Your task to perform on an android device: turn off location history Image 0: 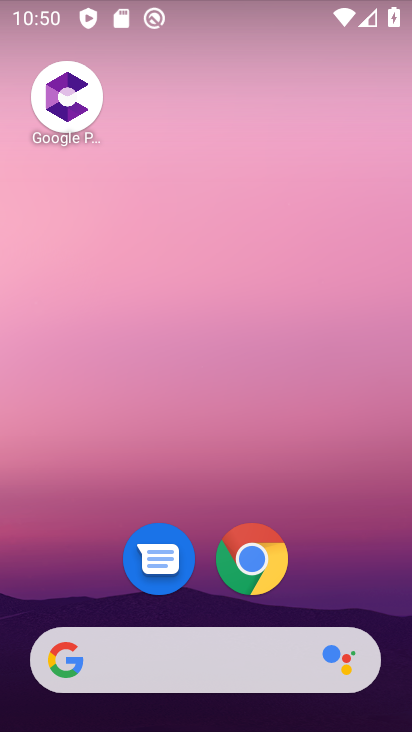
Step 0: drag from (323, 527) to (347, 196)
Your task to perform on an android device: turn off location history Image 1: 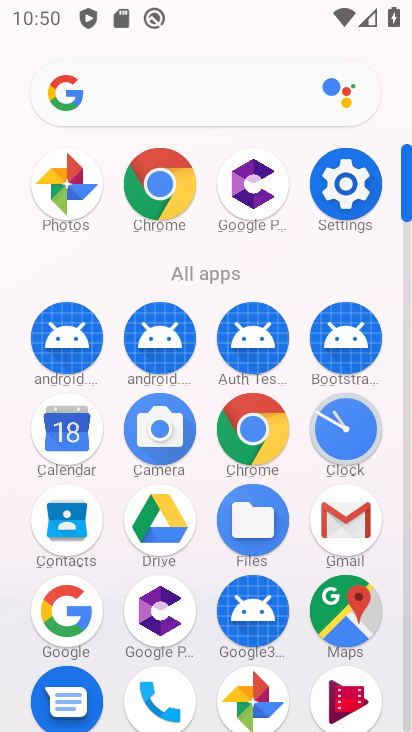
Step 1: drag from (354, 194) to (163, 204)
Your task to perform on an android device: turn off location history Image 2: 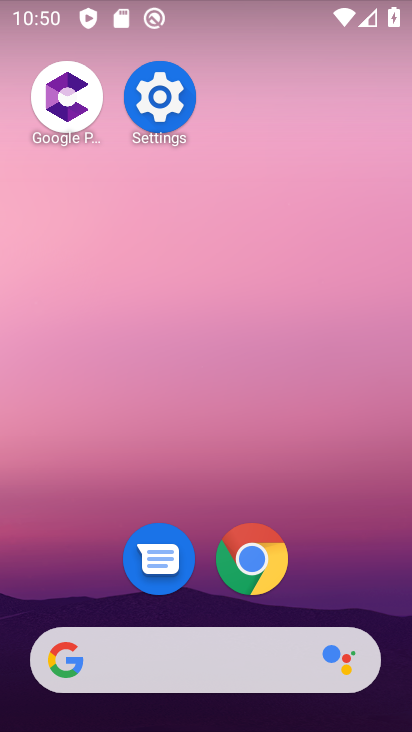
Step 2: drag from (157, 100) to (91, 198)
Your task to perform on an android device: turn off location history Image 3: 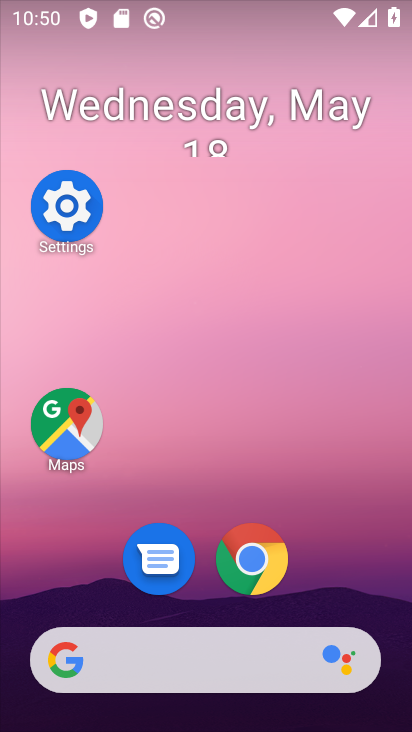
Step 3: click (64, 196)
Your task to perform on an android device: turn off location history Image 4: 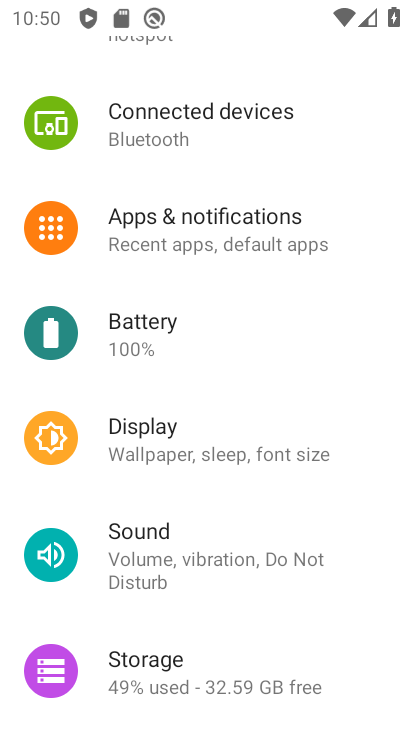
Step 4: drag from (254, 637) to (245, 149)
Your task to perform on an android device: turn off location history Image 5: 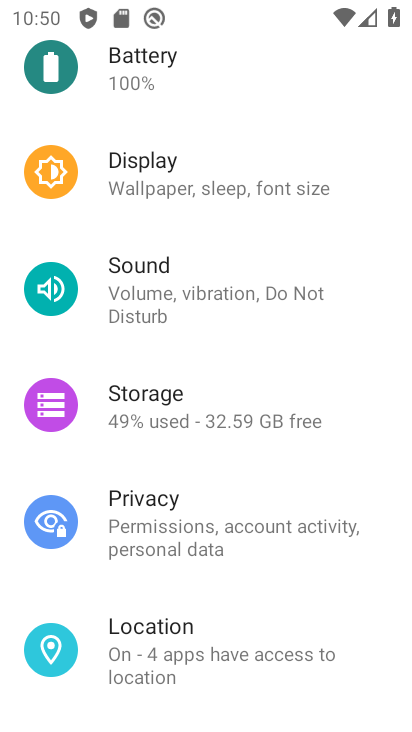
Step 5: click (237, 653)
Your task to perform on an android device: turn off location history Image 6: 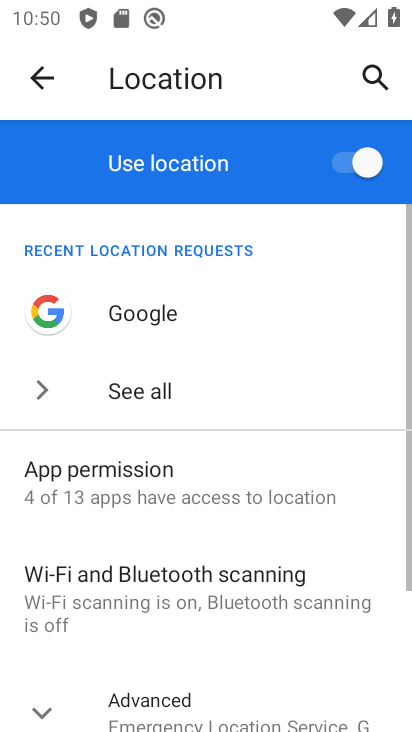
Step 6: drag from (225, 622) to (243, 161)
Your task to perform on an android device: turn off location history Image 7: 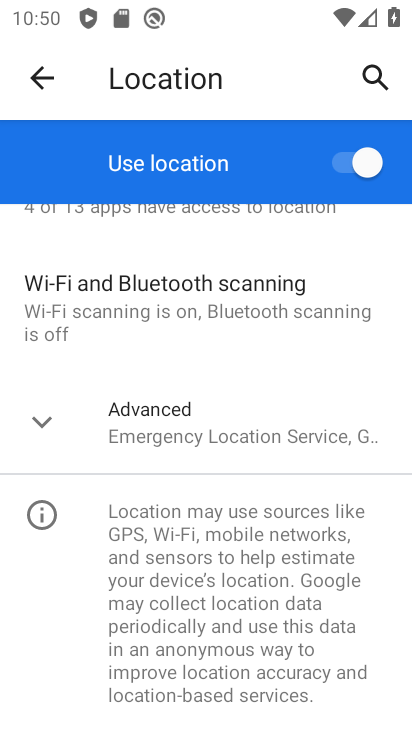
Step 7: click (172, 454)
Your task to perform on an android device: turn off location history Image 8: 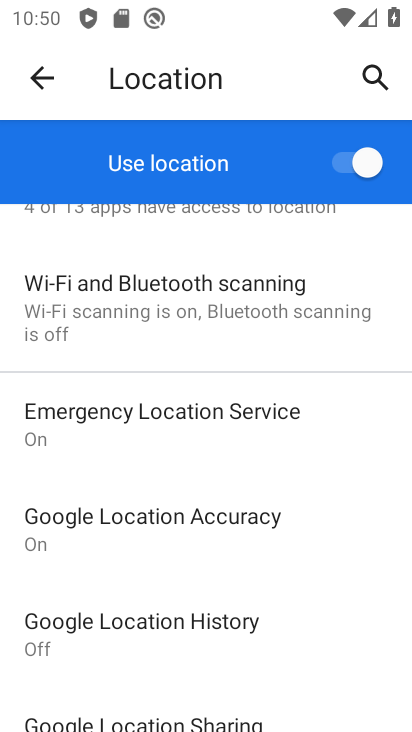
Step 8: click (210, 619)
Your task to perform on an android device: turn off location history Image 9: 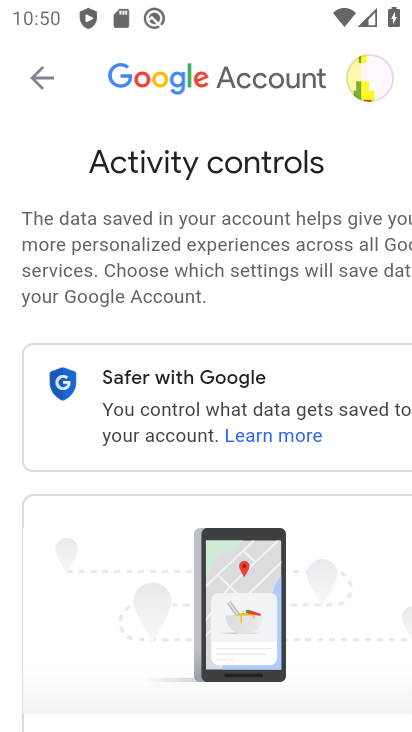
Step 9: drag from (350, 587) to (368, 46)
Your task to perform on an android device: turn off location history Image 10: 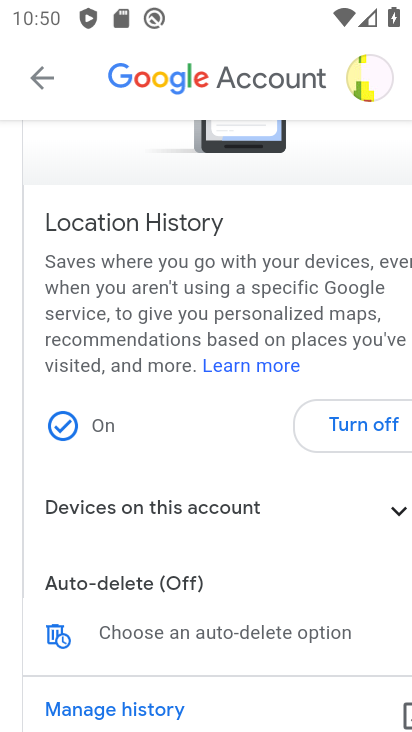
Step 10: click (356, 427)
Your task to perform on an android device: turn off location history Image 11: 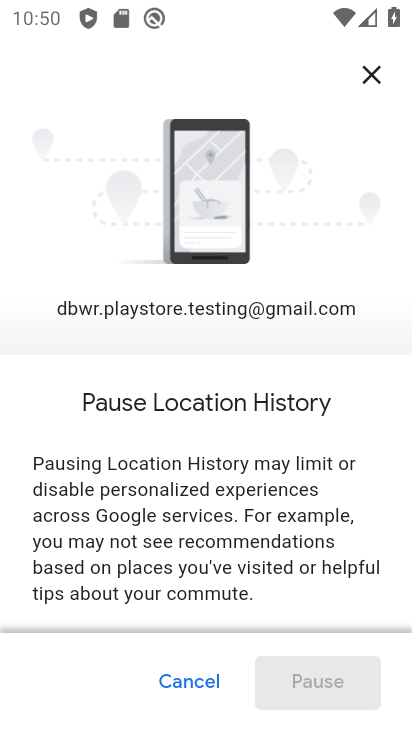
Step 11: drag from (357, 568) to (359, 66)
Your task to perform on an android device: turn off location history Image 12: 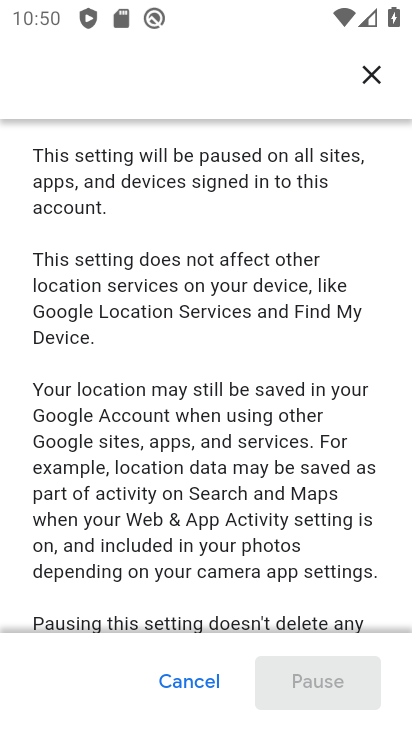
Step 12: drag from (258, 580) to (320, 61)
Your task to perform on an android device: turn off location history Image 13: 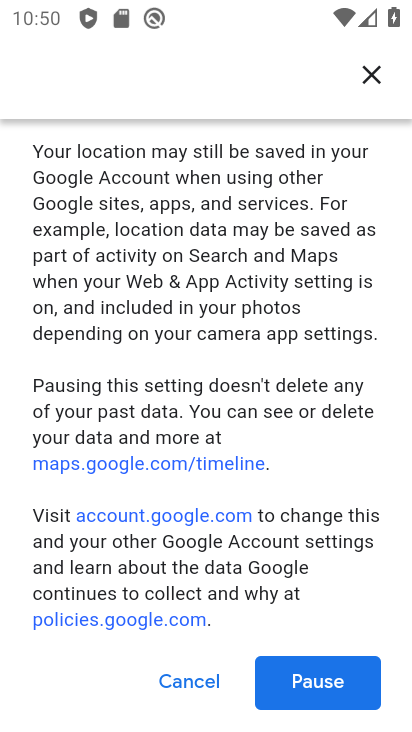
Step 13: click (311, 669)
Your task to perform on an android device: turn off location history Image 14: 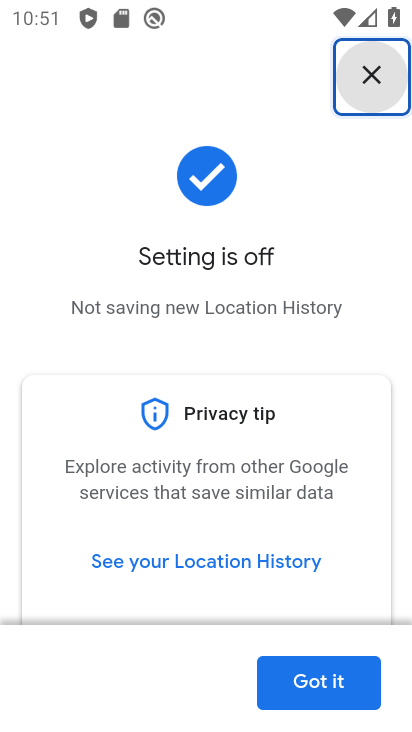
Step 14: click (311, 669)
Your task to perform on an android device: turn off location history Image 15: 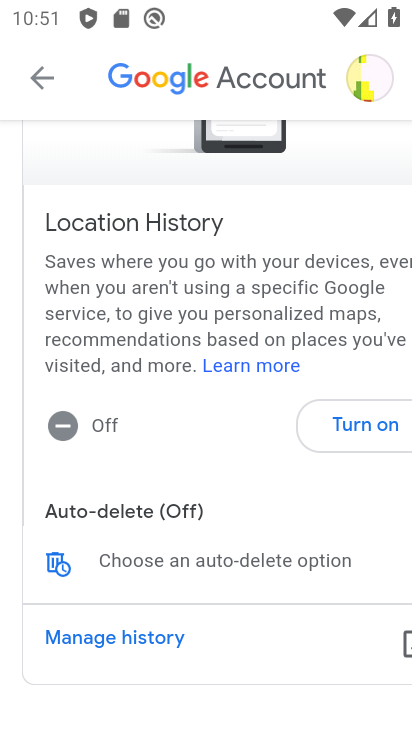
Step 15: task complete